Your task to perform on an android device: turn off sleep mode Image 0: 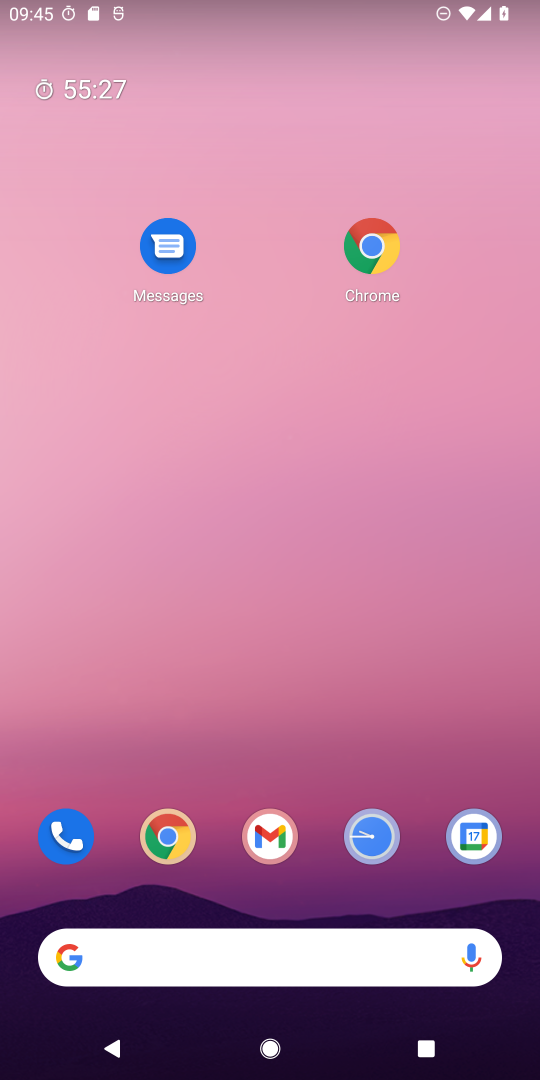
Step 0: drag from (228, 586) to (267, 299)
Your task to perform on an android device: turn off sleep mode Image 1: 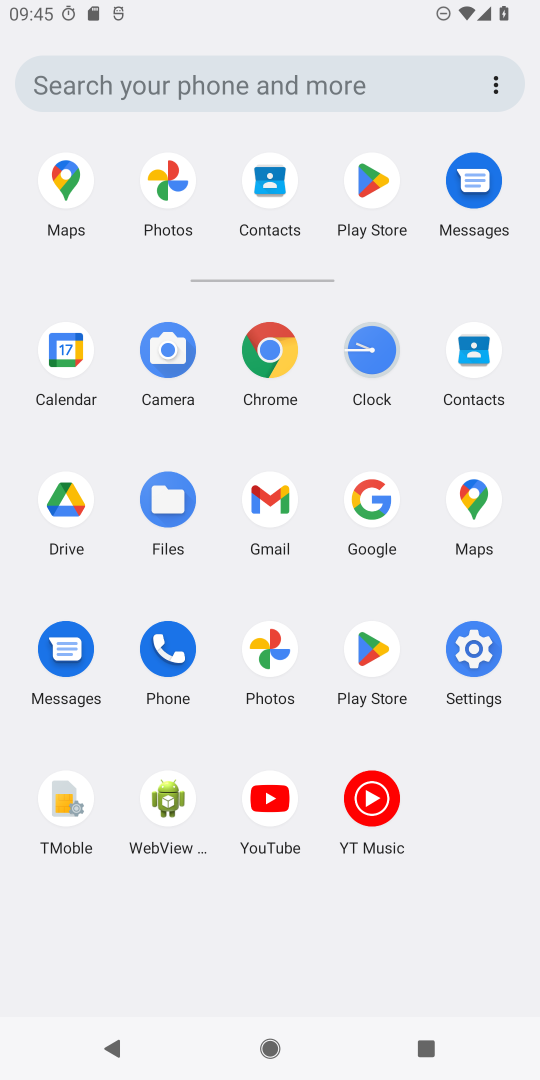
Step 1: click (472, 648)
Your task to perform on an android device: turn off sleep mode Image 2: 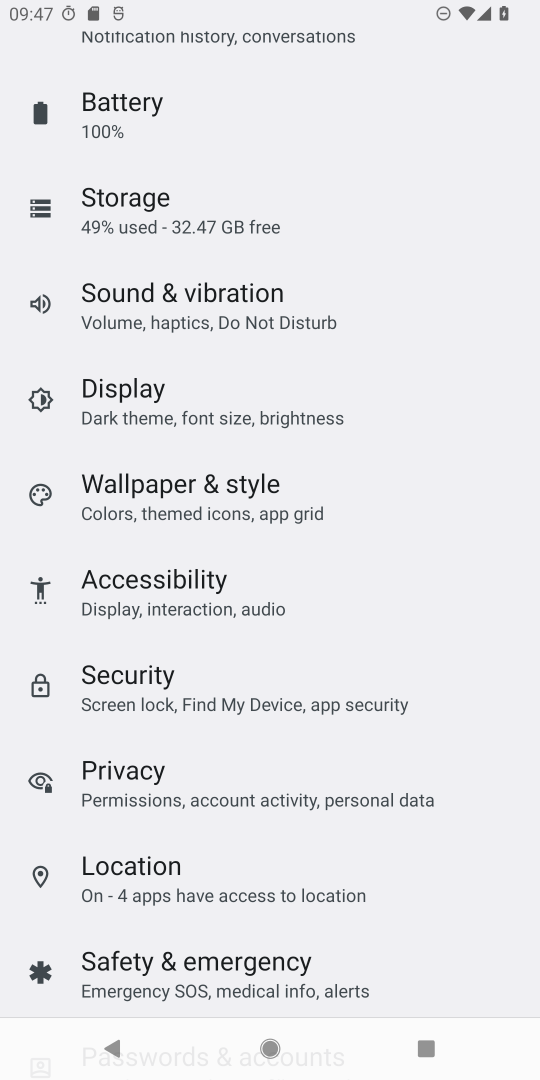
Step 2: task complete